Your task to perform on an android device: How big is the sun? Image 0: 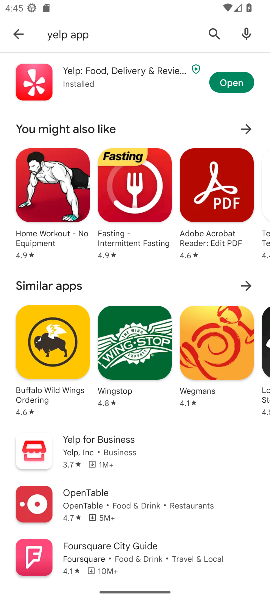
Step 0: press home button
Your task to perform on an android device: How big is the sun? Image 1: 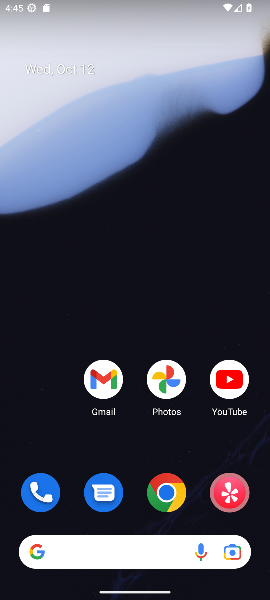
Step 1: click (155, 493)
Your task to perform on an android device: How big is the sun? Image 2: 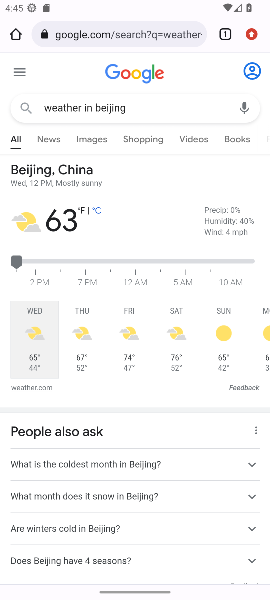
Step 2: click (107, 17)
Your task to perform on an android device: How big is the sun? Image 3: 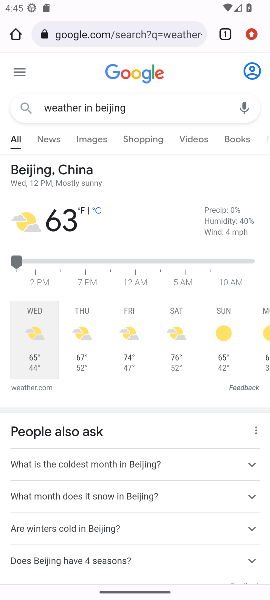
Step 3: click (99, 34)
Your task to perform on an android device: How big is the sun? Image 4: 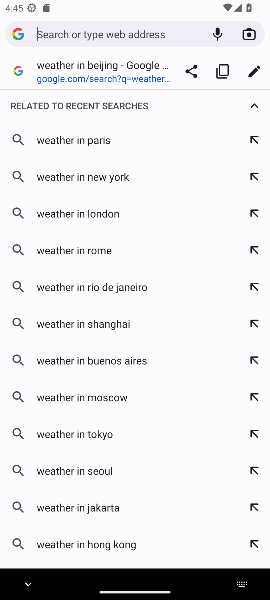
Step 4: type "How big is the sun?"
Your task to perform on an android device: How big is the sun? Image 5: 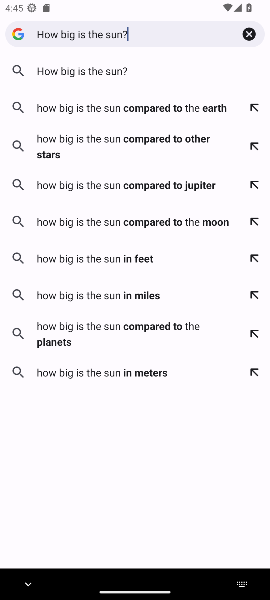
Step 5: click (61, 74)
Your task to perform on an android device: How big is the sun? Image 6: 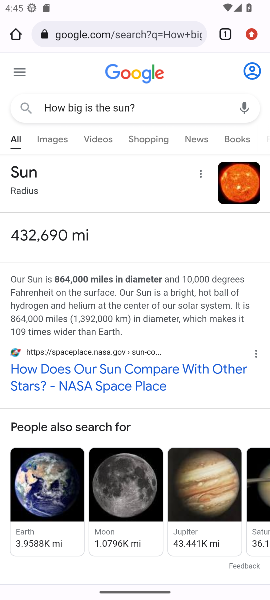
Step 6: task complete